Your task to perform on an android device: Check the weather Image 0: 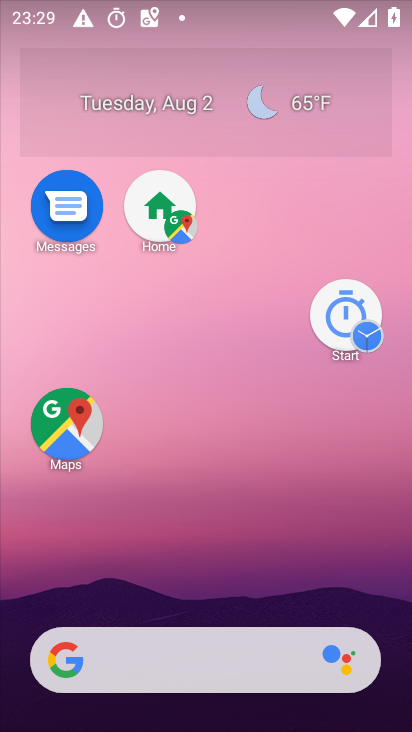
Step 0: drag from (134, 121) to (134, 70)
Your task to perform on an android device: Check the weather Image 1: 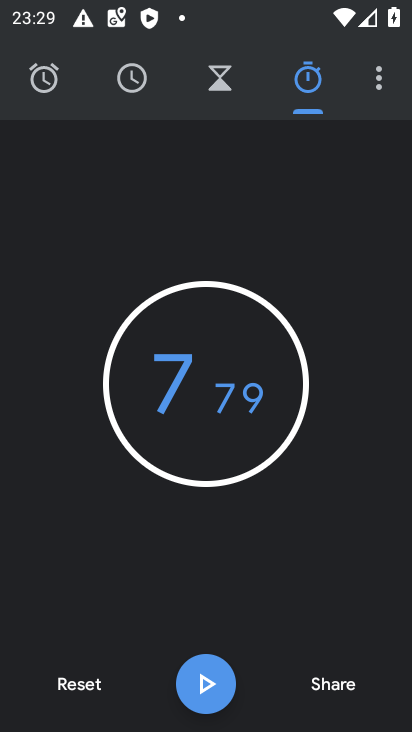
Step 1: press back button
Your task to perform on an android device: Check the weather Image 2: 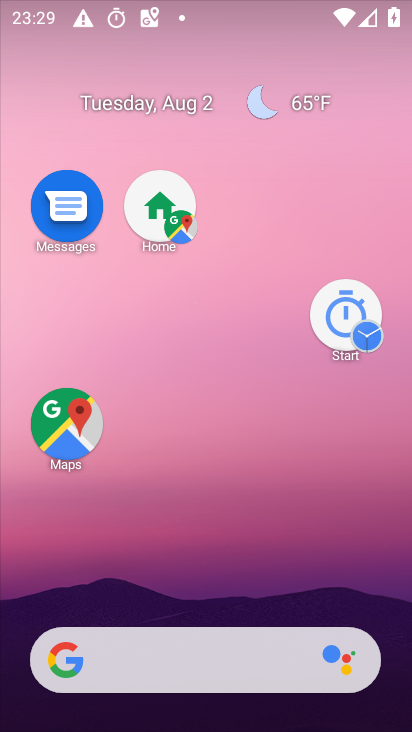
Step 2: drag from (309, 680) to (283, 123)
Your task to perform on an android device: Check the weather Image 3: 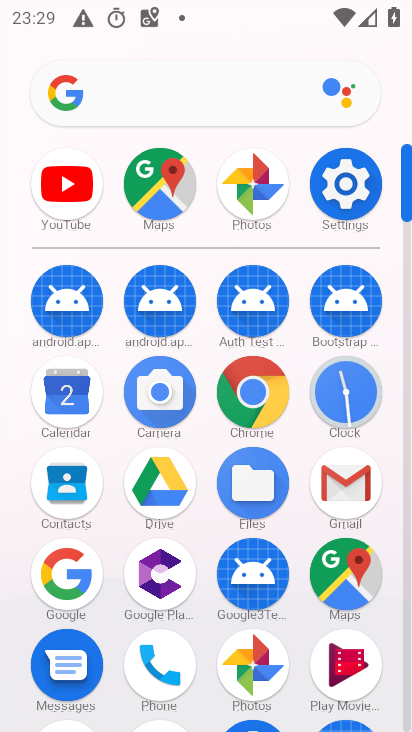
Step 3: click (356, 189)
Your task to perform on an android device: Check the weather Image 4: 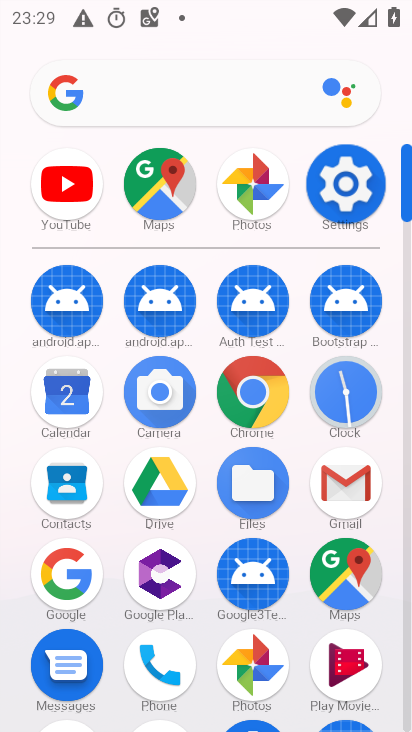
Step 4: click (355, 189)
Your task to perform on an android device: Check the weather Image 5: 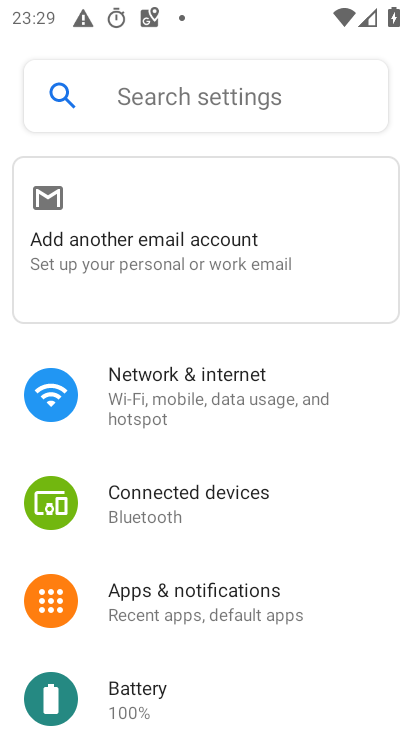
Step 5: task complete